Your task to perform on an android device: turn on the 24-hour format for clock Image 0: 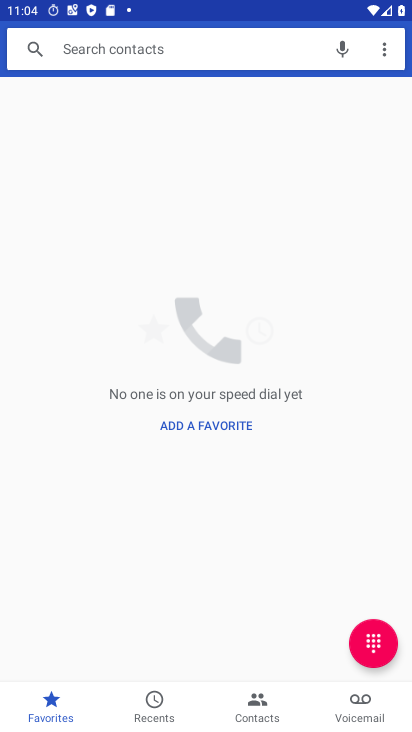
Step 0: press home button
Your task to perform on an android device: turn on the 24-hour format for clock Image 1: 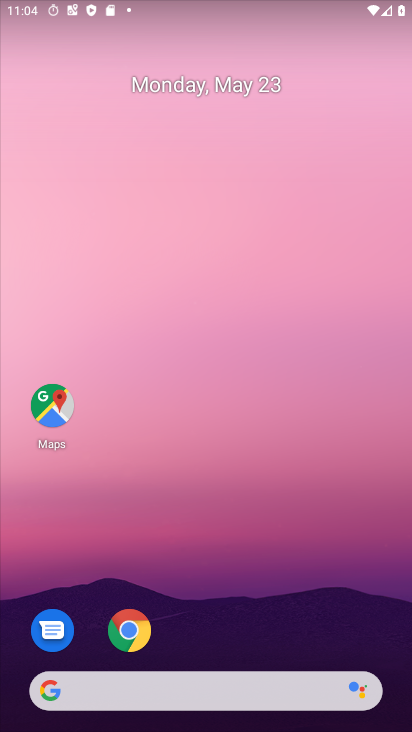
Step 1: drag from (299, 654) to (285, 2)
Your task to perform on an android device: turn on the 24-hour format for clock Image 2: 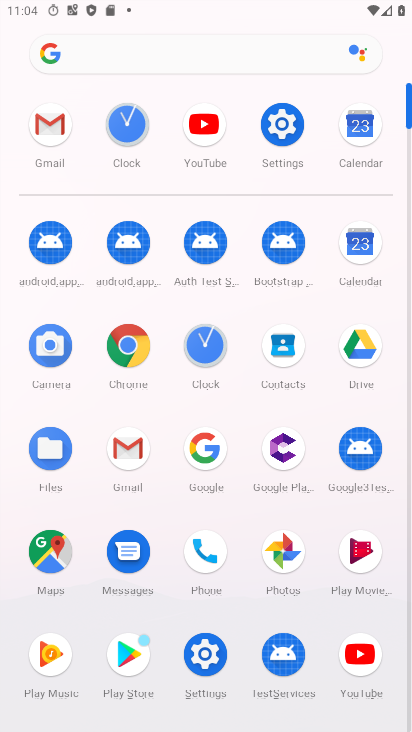
Step 2: click (125, 131)
Your task to perform on an android device: turn on the 24-hour format for clock Image 3: 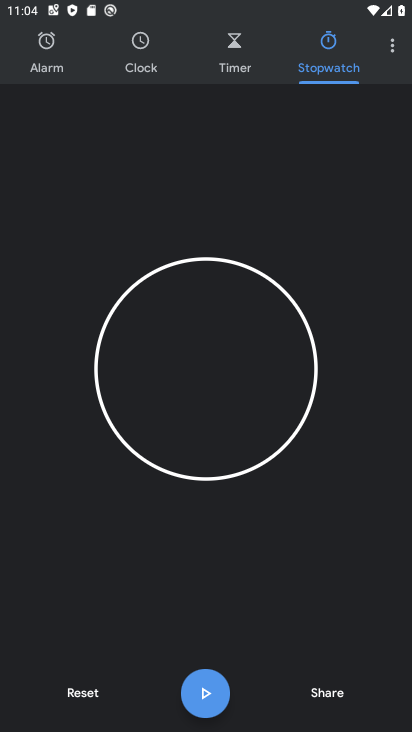
Step 3: click (394, 52)
Your task to perform on an android device: turn on the 24-hour format for clock Image 4: 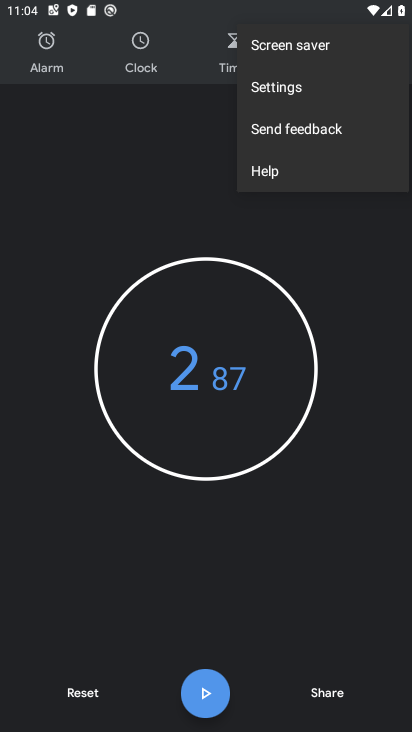
Step 4: click (300, 97)
Your task to perform on an android device: turn on the 24-hour format for clock Image 5: 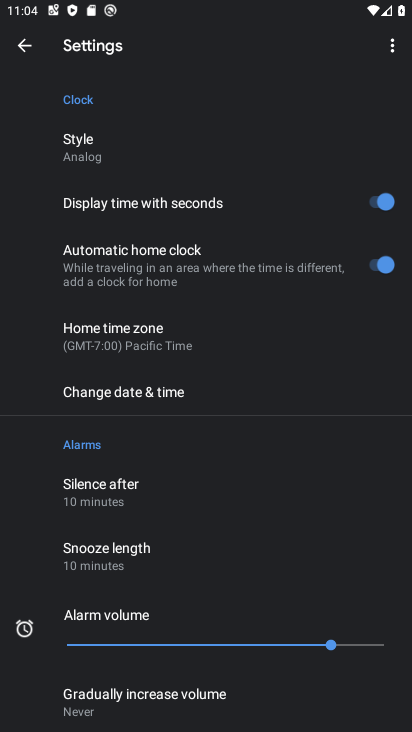
Step 5: click (103, 396)
Your task to perform on an android device: turn on the 24-hour format for clock Image 6: 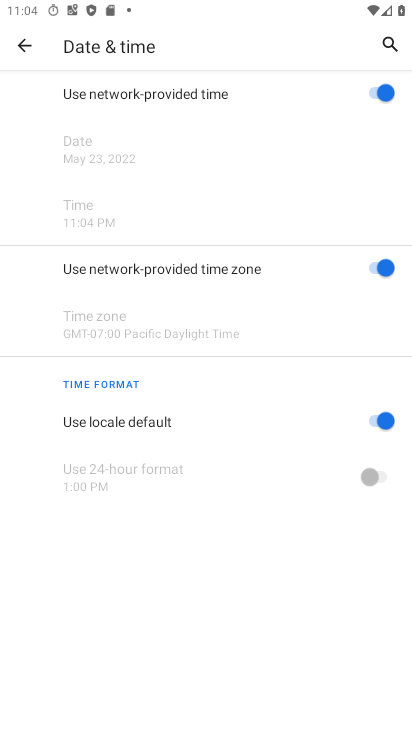
Step 6: click (383, 418)
Your task to perform on an android device: turn on the 24-hour format for clock Image 7: 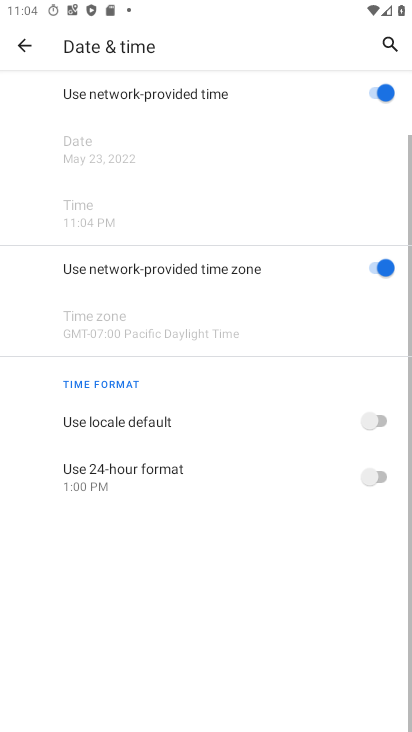
Step 7: click (364, 473)
Your task to perform on an android device: turn on the 24-hour format for clock Image 8: 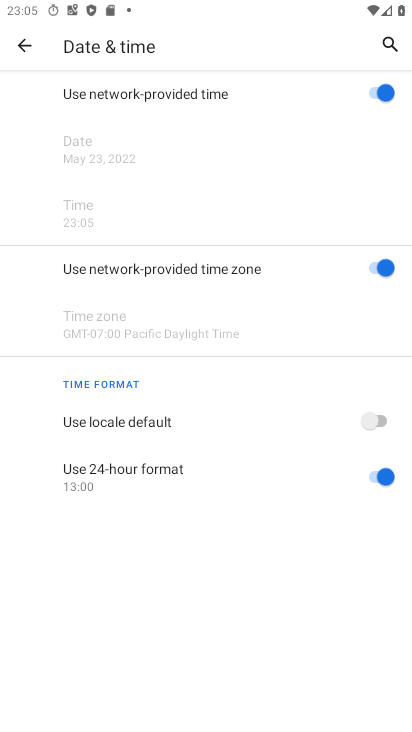
Step 8: task complete